Your task to perform on an android device: turn off data saver in the chrome app Image 0: 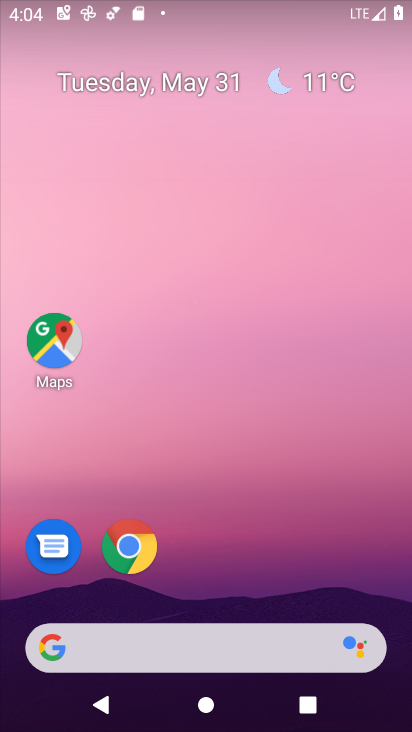
Step 0: click (153, 537)
Your task to perform on an android device: turn off data saver in the chrome app Image 1: 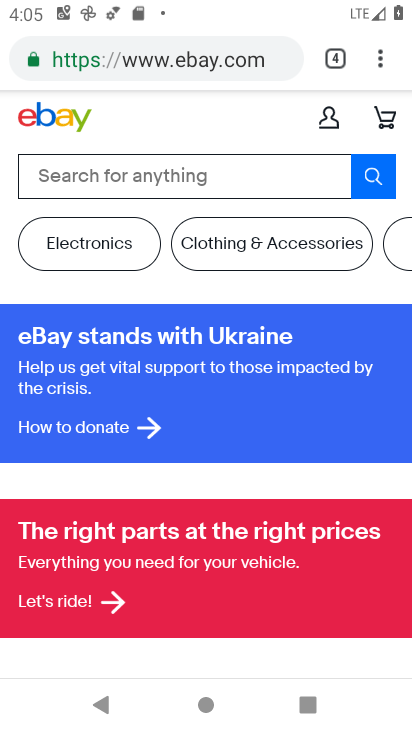
Step 1: click (378, 56)
Your task to perform on an android device: turn off data saver in the chrome app Image 2: 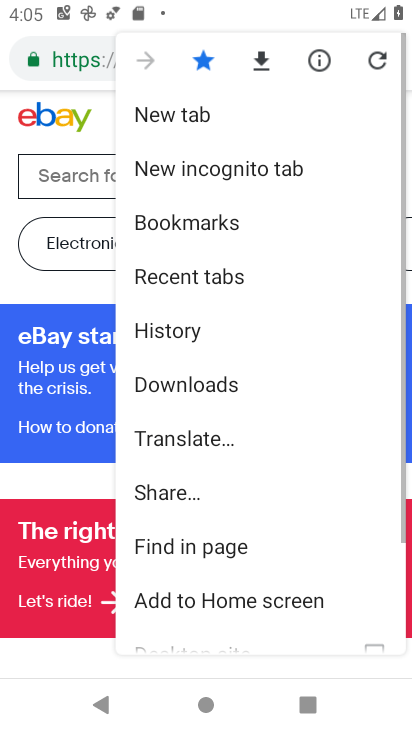
Step 2: drag from (315, 574) to (201, 128)
Your task to perform on an android device: turn off data saver in the chrome app Image 3: 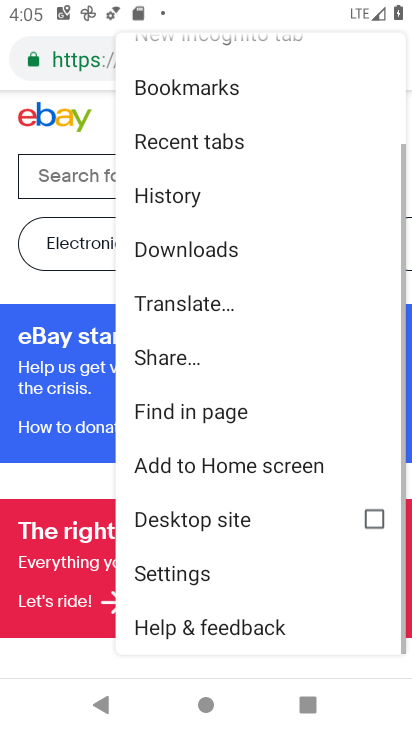
Step 3: click (240, 575)
Your task to perform on an android device: turn off data saver in the chrome app Image 4: 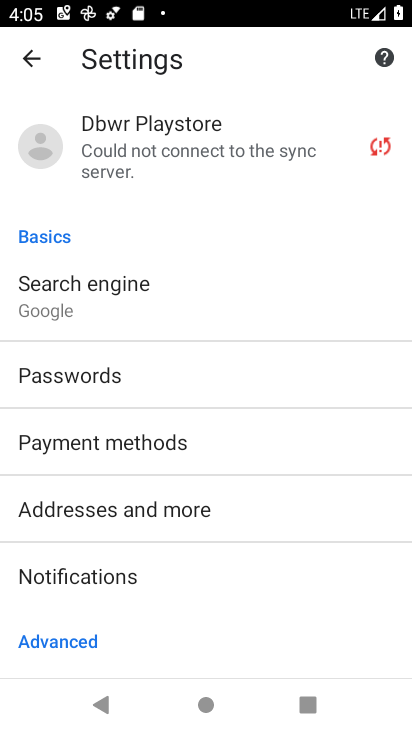
Step 4: drag from (211, 578) to (231, 159)
Your task to perform on an android device: turn off data saver in the chrome app Image 5: 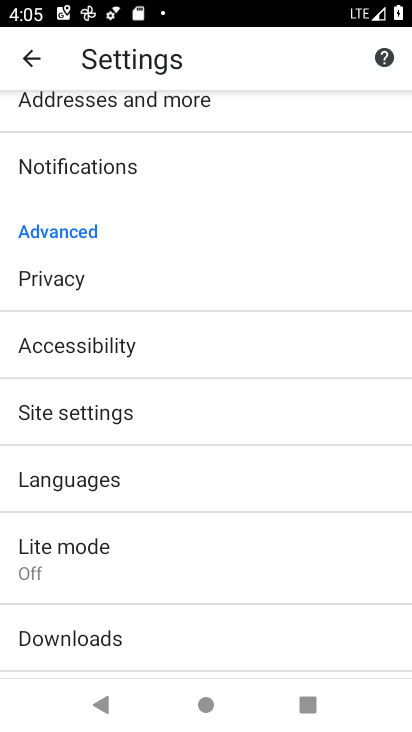
Step 5: click (160, 550)
Your task to perform on an android device: turn off data saver in the chrome app Image 6: 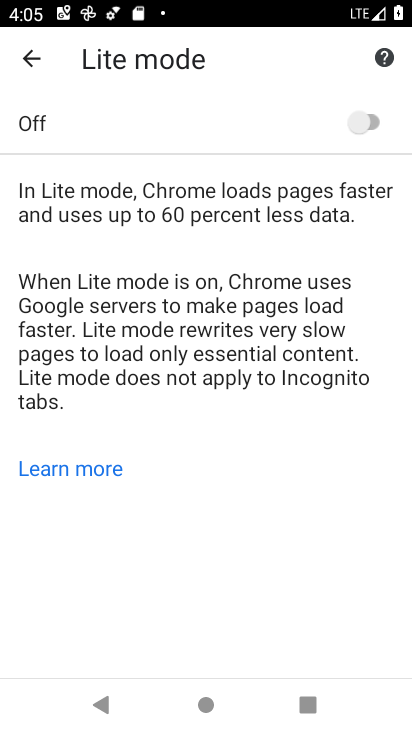
Step 6: task complete